Your task to perform on an android device: Show me recent news Image 0: 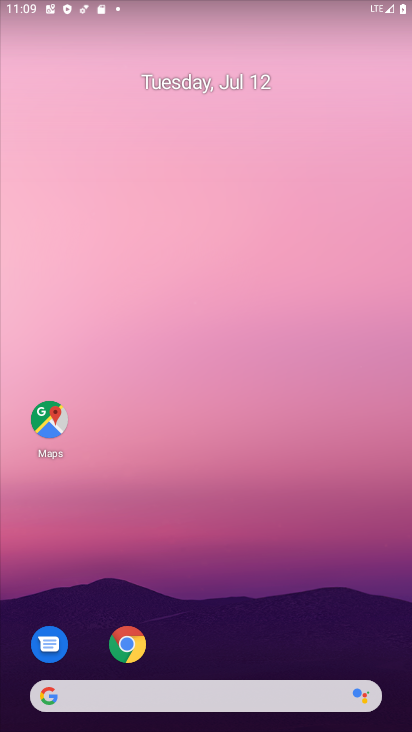
Step 0: click (269, 696)
Your task to perform on an android device: Show me recent news Image 1: 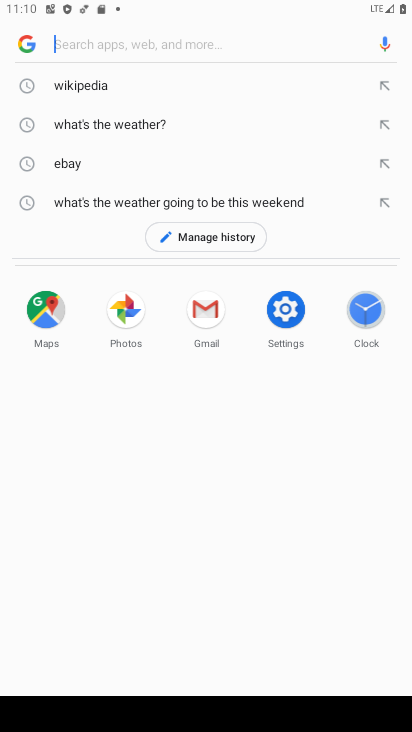
Step 1: type "recent news"
Your task to perform on an android device: Show me recent news Image 2: 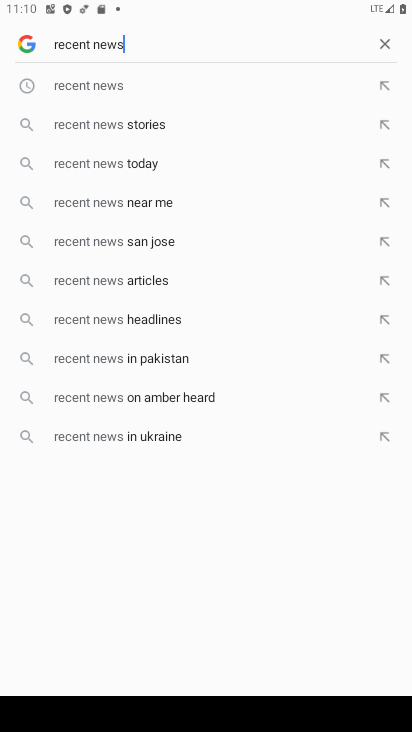
Step 2: click (148, 76)
Your task to perform on an android device: Show me recent news Image 3: 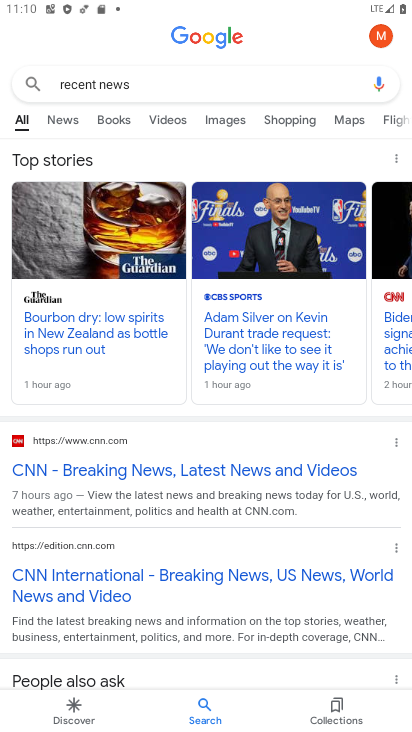
Step 3: task complete